Your task to perform on an android device: install app "Facebook" Image 0: 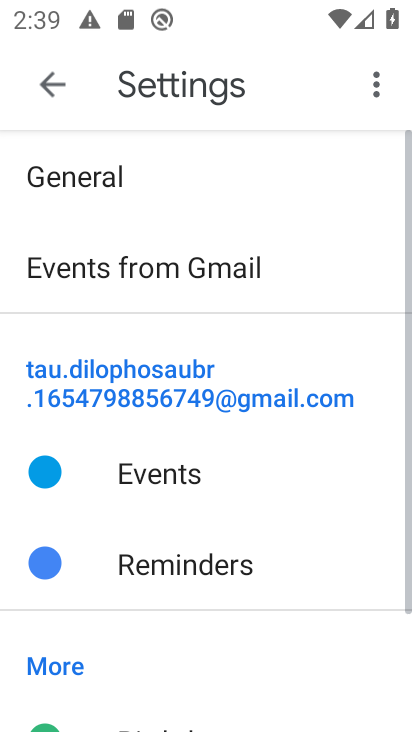
Step 0: press home button
Your task to perform on an android device: install app "Facebook" Image 1: 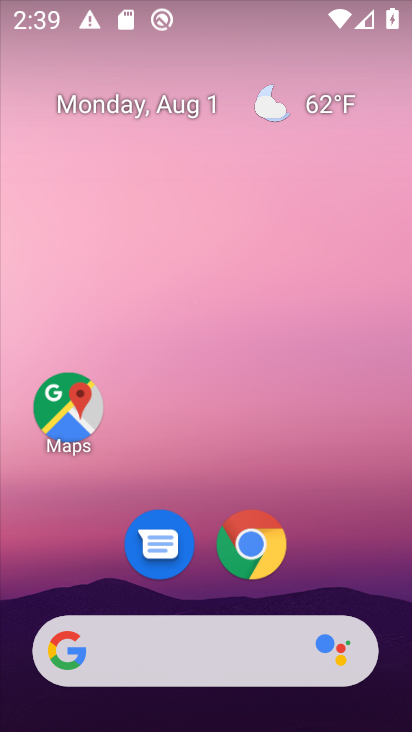
Step 1: drag from (393, 596) to (288, 40)
Your task to perform on an android device: install app "Facebook" Image 2: 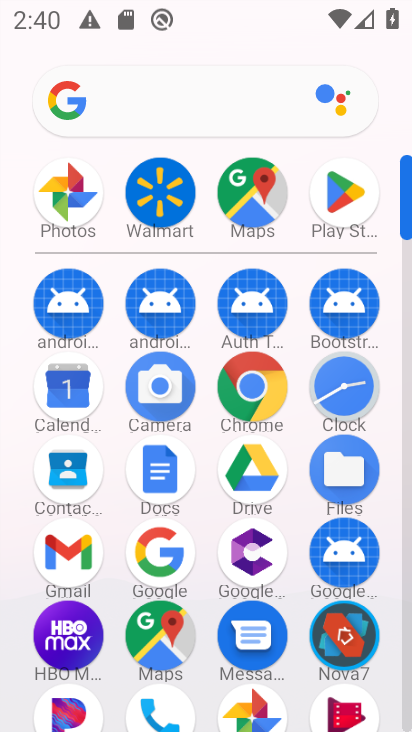
Step 2: click (333, 201)
Your task to perform on an android device: install app "Facebook" Image 3: 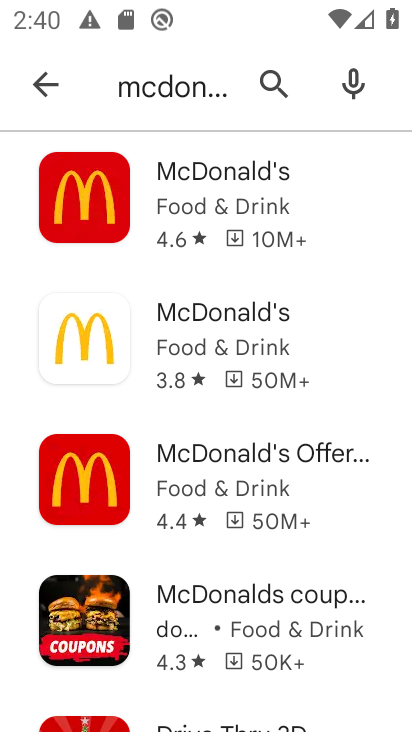
Step 3: press back button
Your task to perform on an android device: install app "Facebook" Image 4: 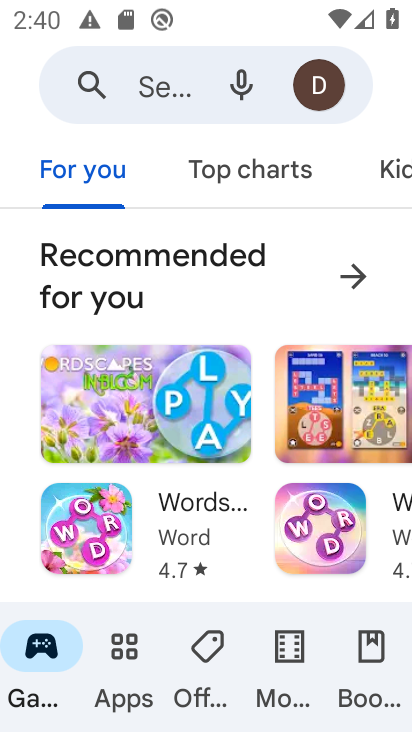
Step 4: click (162, 89)
Your task to perform on an android device: install app "Facebook" Image 5: 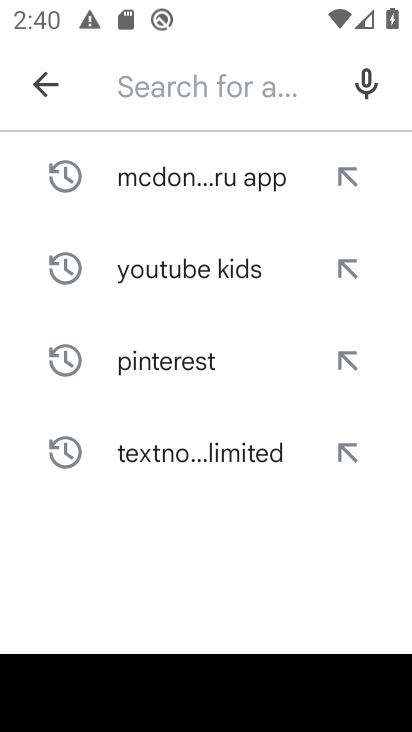
Step 5: type "Facebook"
Your task to perform on an android device: install app "Facebook" Image 6: 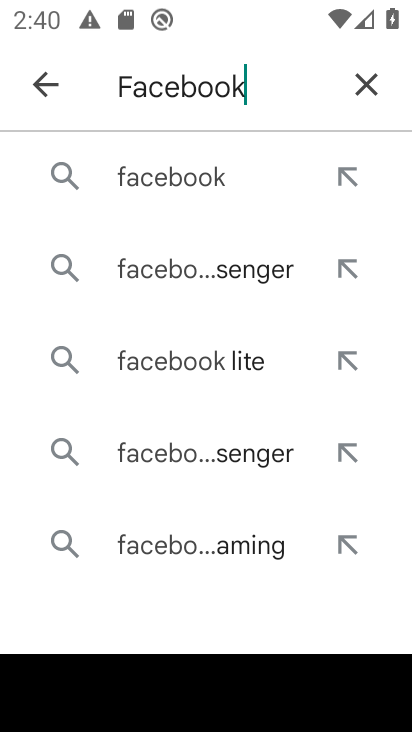
Step 6: click (161, 183)
Your task to perform on an android device: install app "Facebook" Image 7: 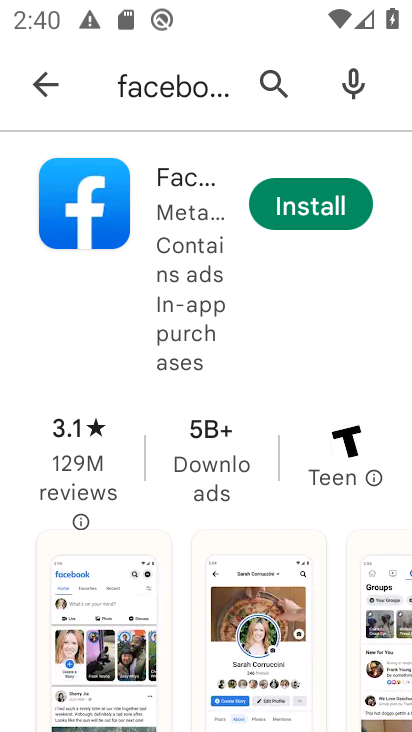
Step 7: click (301, 215)
Your task to perform on an android device: install app "Facebook" Image 8: 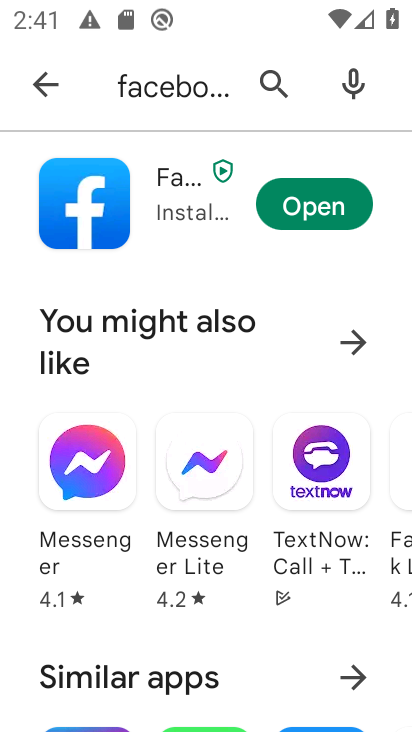
Step 8: task complete